Your task to perform on an android device: delete a single message in the gmail app Image 0: 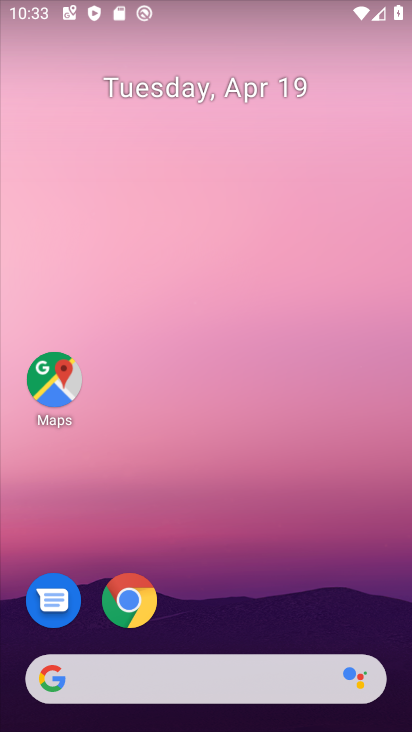
Step 0: drag from (213, 631) to (295, 20)
Your task to perform on an android device: delete a single message in the gmail app Image 1: 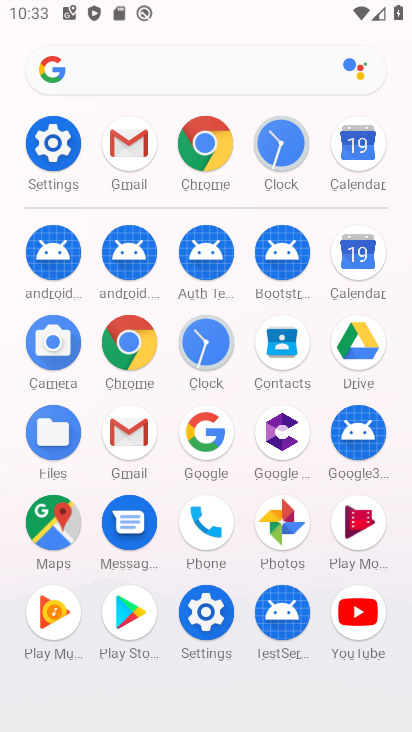
Step 1: click (124, 441)
Your task to perform on an android device: delete a single message in the gmail app Image 2: 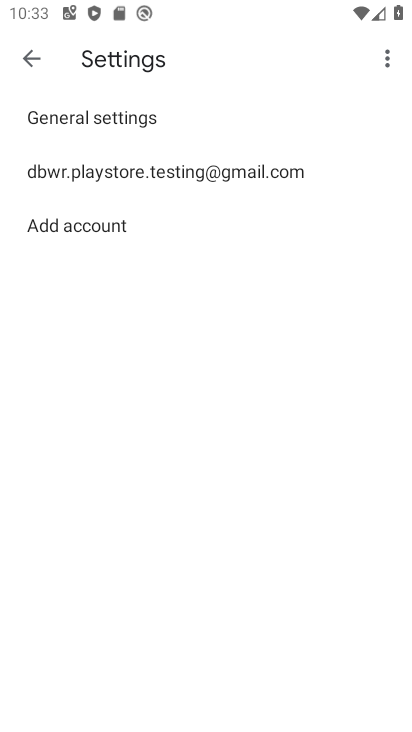
Step 2: click (36, 64)
Your task to perform on an android device: delete a single message in the gmail app Image 3: 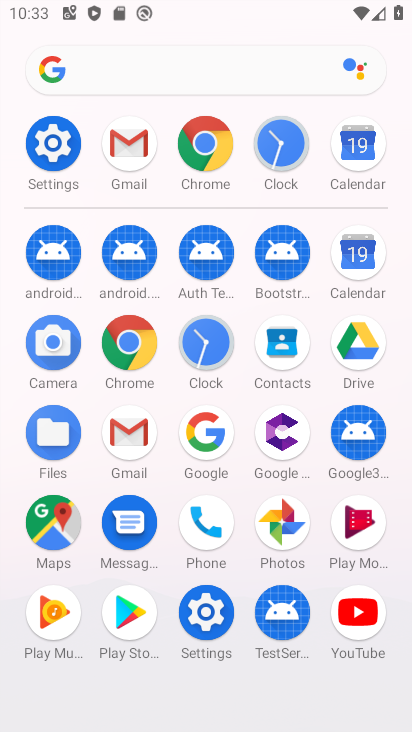
Step 3: click (145, 444)
Your task to perform on an android device: delete a single message in the gmail app Image 4: 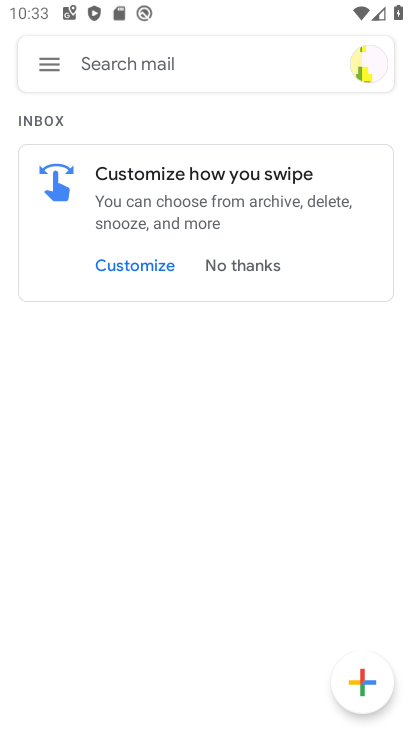
Step 4: task complete